Your task to perform on an android device: Do I have any events tomorrow? Image 0: 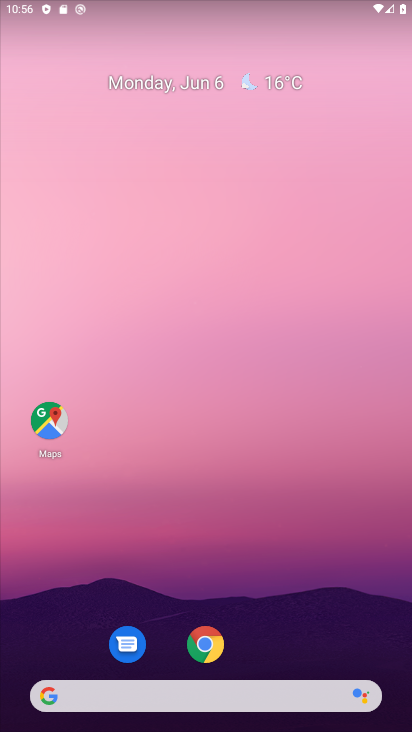
Step 0: drag from (324, 608) to (311, 200)
Your task to perform on an android device: Do I have any events tomorrow? Image 1: 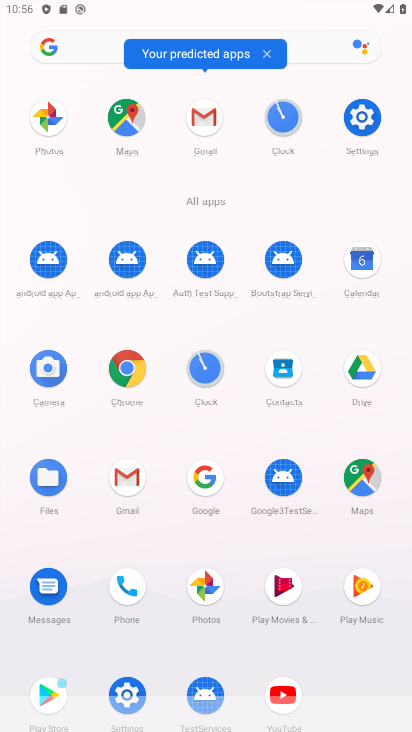
Step 1: click (370, 262)
Your task to perform on an android device: Do I have any events tomorrow? Image 2: 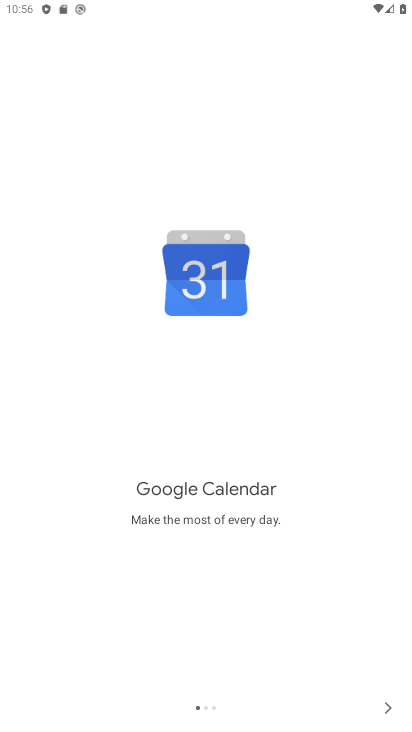
Step 2: click (390, 709)
Your task to perform on an android device: Do I have any events tomorrow? Image 3: 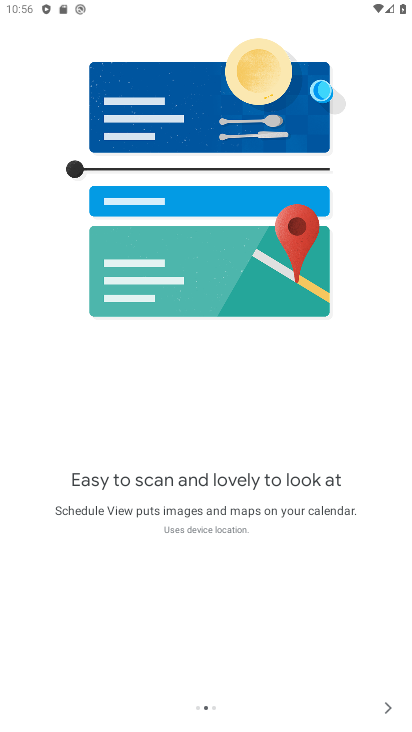
Step 3: click (390, 709)
Your task to perform on an android device: Do I have any events tomorrow? Image 4: 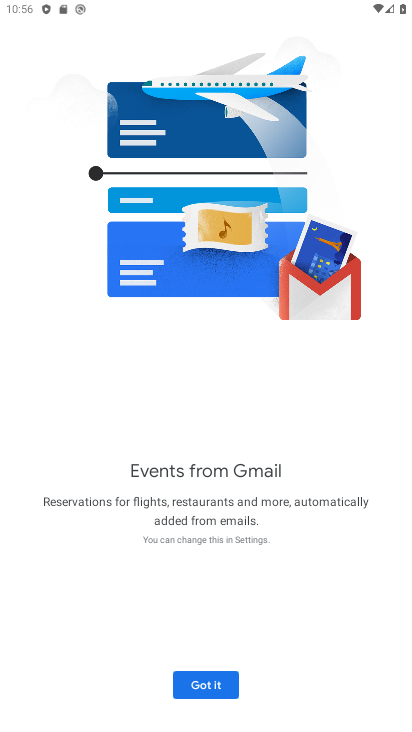
Step 4: click (215, 683)
Your task to perform on an android device: Do I have any events tomorrow? Image 5: 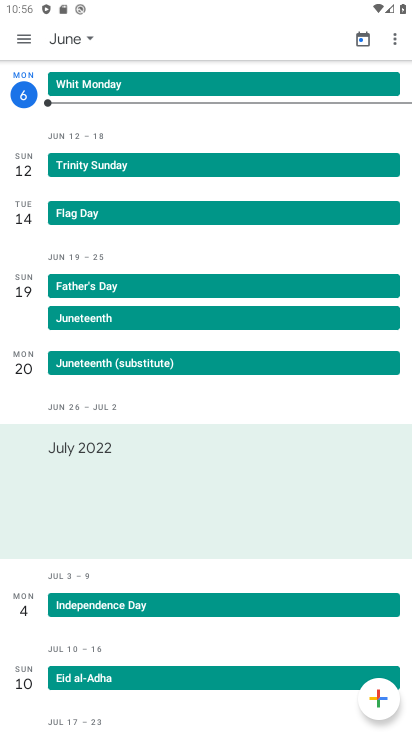
Step 5: click (18, 41)
Your task to perform on an android device: Do I have any events tomorrow? Image 6: 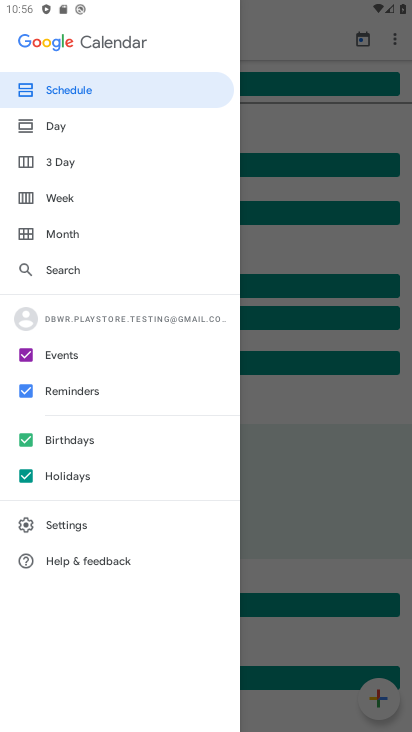
Step 6: click (28, 469)
Your task to perform on an android device: Do I have any events tomorrow? Image 7: 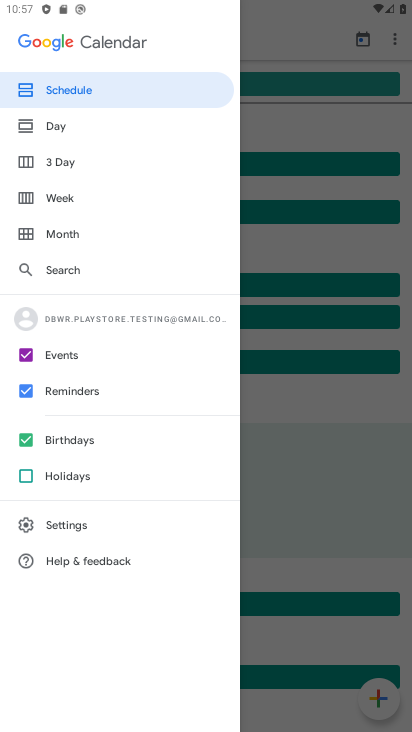
Step 7: click (29, 445)
Your task to perform on an android device: Do I have any events tomorrow? Image 8: 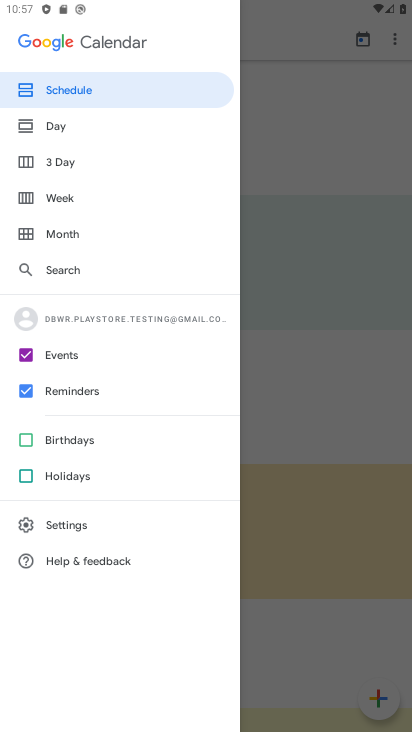
Step 8: click (30, 389)
Your task to perform on an android device: Do I have any events tomorrow? Image 9: 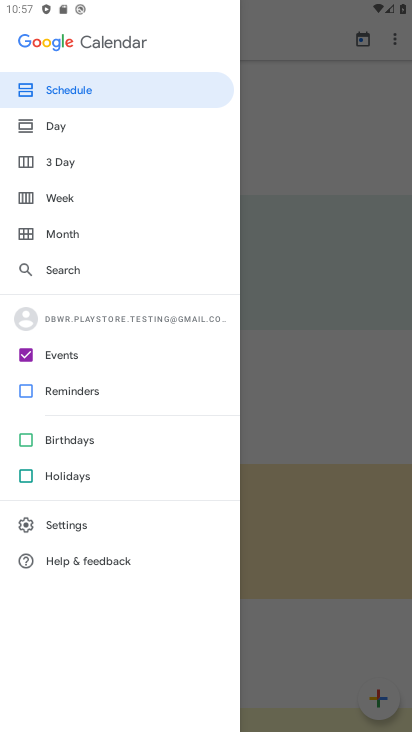
Step 9: click (82, 198)
Your task to perform on an android device: Do I have any events tomorrow? Image 10: 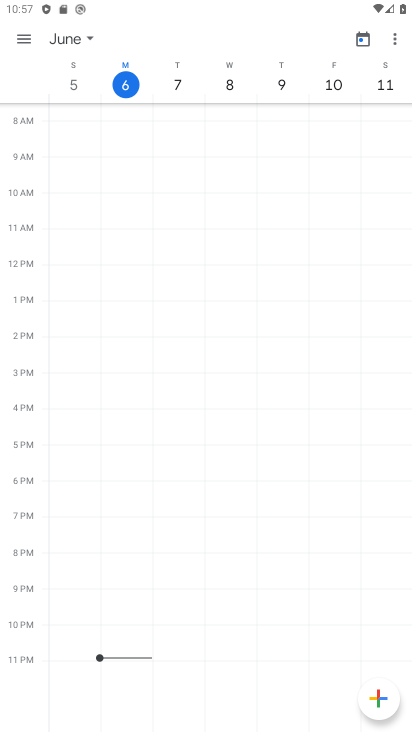
Step 10: click (21, 48)
Your task to perform on an android device: Do I have any events tomorrow? Image 11: 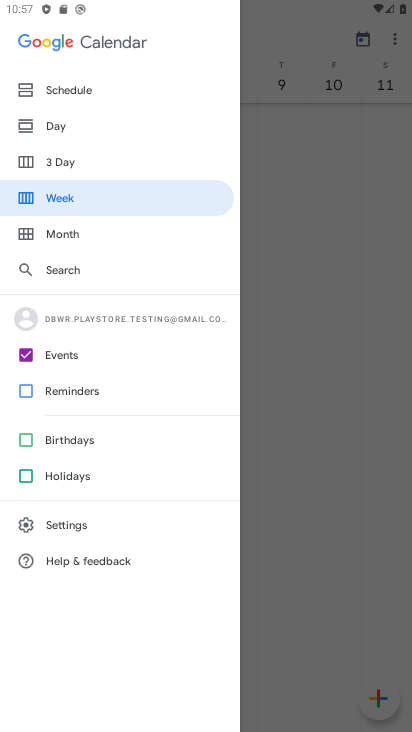
Step 11: click (44, 122)
Your task to perform on an android device: Do I have any events tomorrow? Image 12: 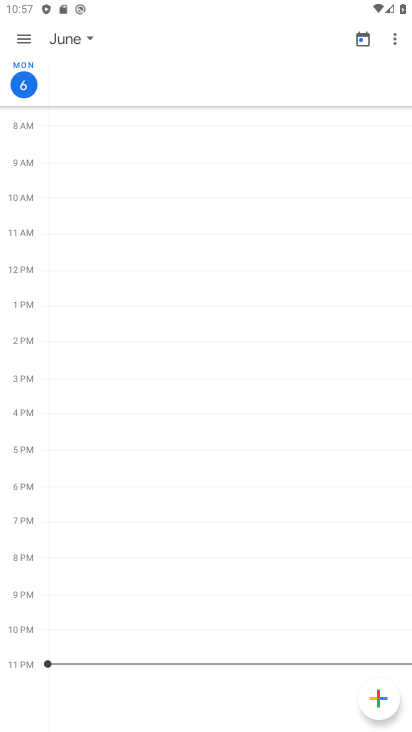
Step 12: click (68, 37)
Your task to perform on an android device: Do I have any events tomorrow? Image 13: 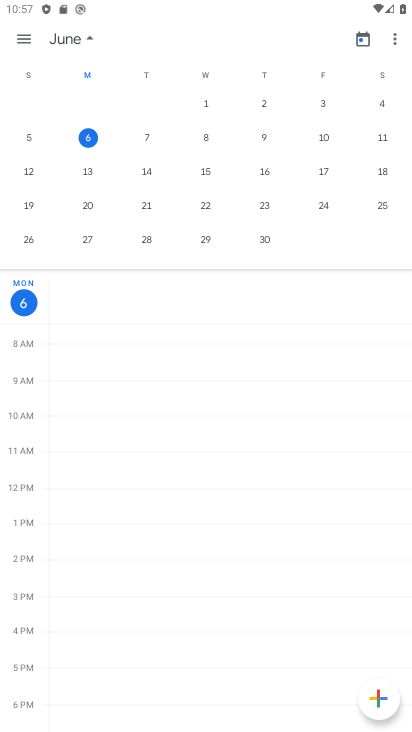
Step 13: click (151, 140)
Your task to perform on an android device: Do I have any events tomorrow? Image 14: 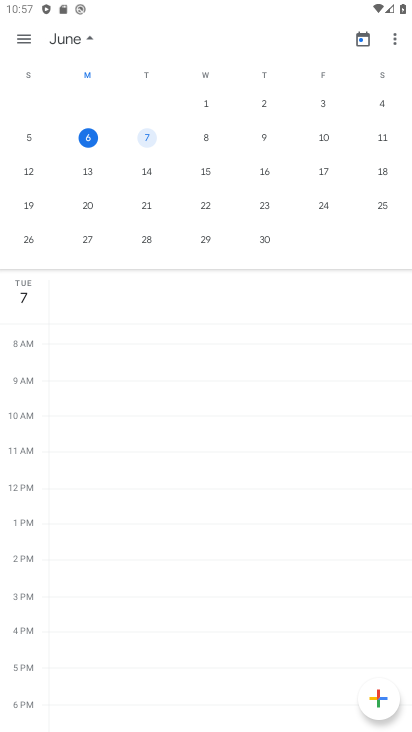
Step 14: task complete